Your task to perform on an android device: turn notification dots on Image 0: 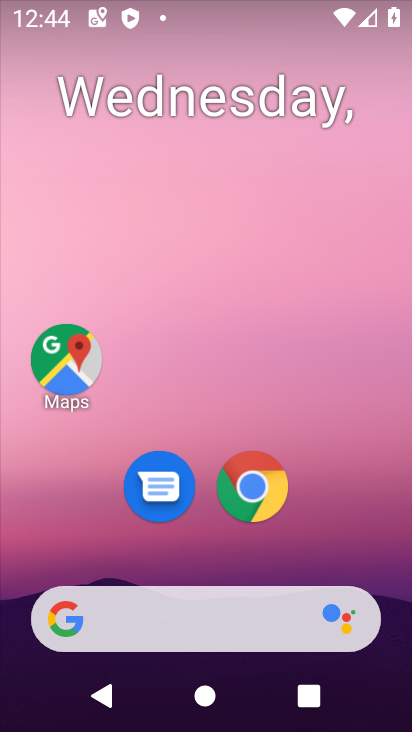
Step 0: drag from (362, 531) to (332, 76)
Your task to perform on an android device: turn notification dots on Image 1: 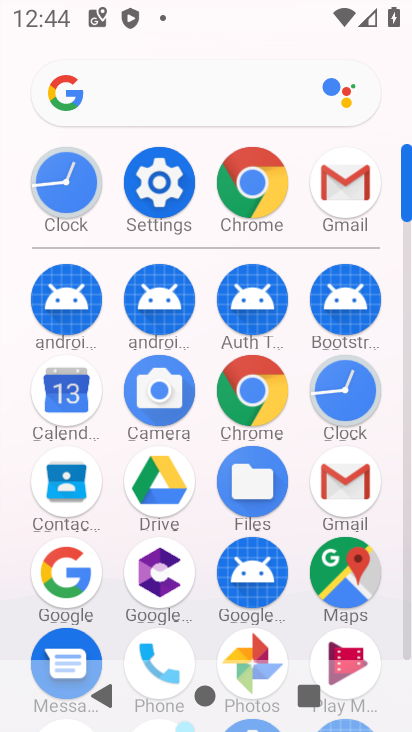
Step 1: click (165, 196)
Your task to perform on an android device: turn notification dots on Image 2: 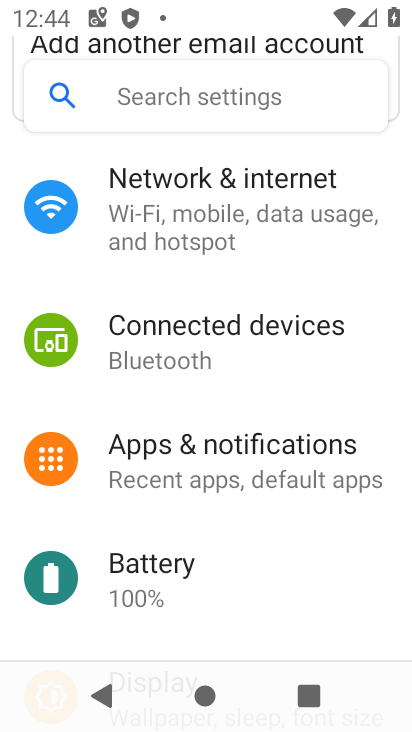
Step 2: drag from (342, 516) to (357, 371)
Your task to perform on an android device: turn notification dots on Image 3: 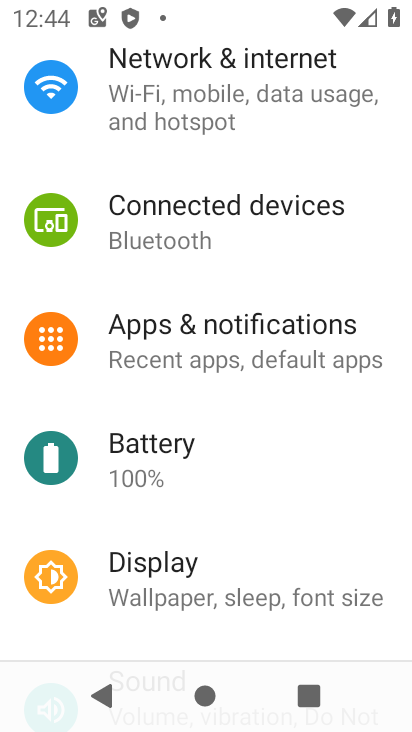
Step 3: drag from (303, 504) to (338, 274)
Your task to perform on an android device: turn notification dots on Image 4: 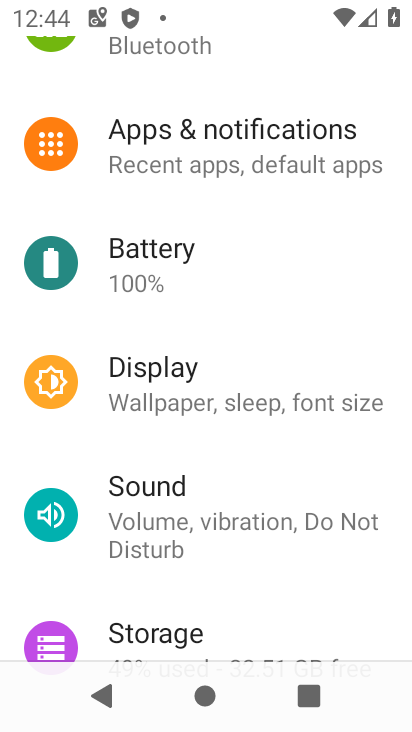
Step 4: click (331, 166)
Your task to perform on an android device: turn notification dots on Image 5: 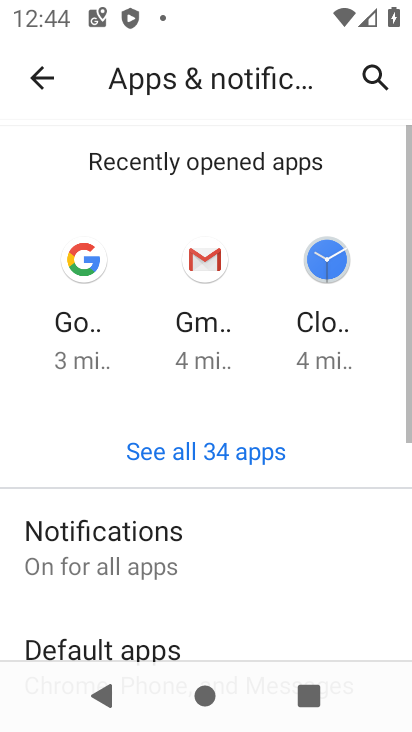
Step 5: drag from (338, 490) to (330, 330)
Your task to perform on an android device: turn notification dots on Image 6: 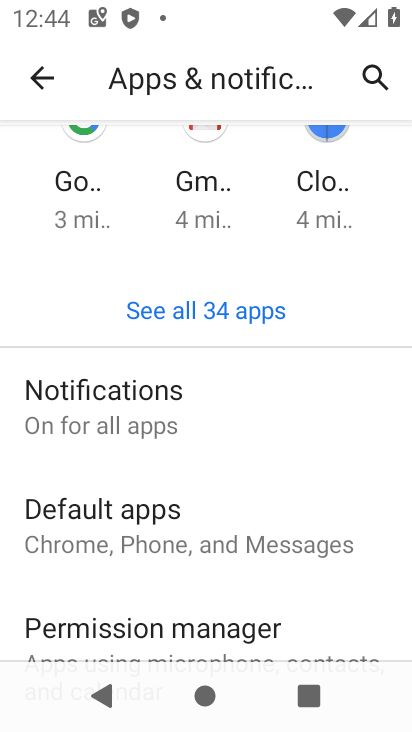
Step 6: drag from (339, 475) to (339, 281)
Your task to perform on an android device: turn notification dots on Image 7: 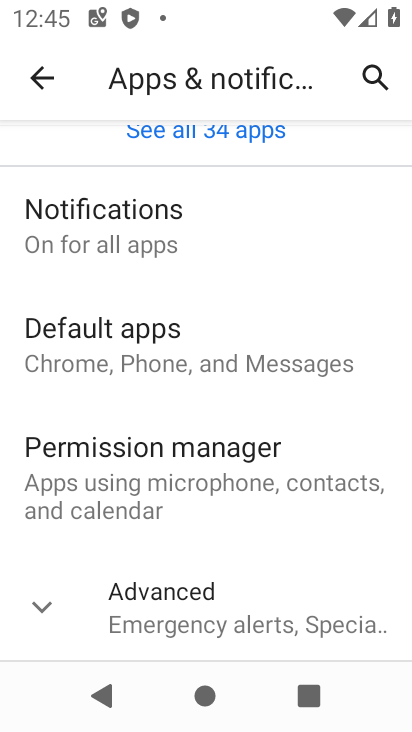
Step 7: click (183, 232)
Your task to perform on an android device: turn notification dots on Image 8: 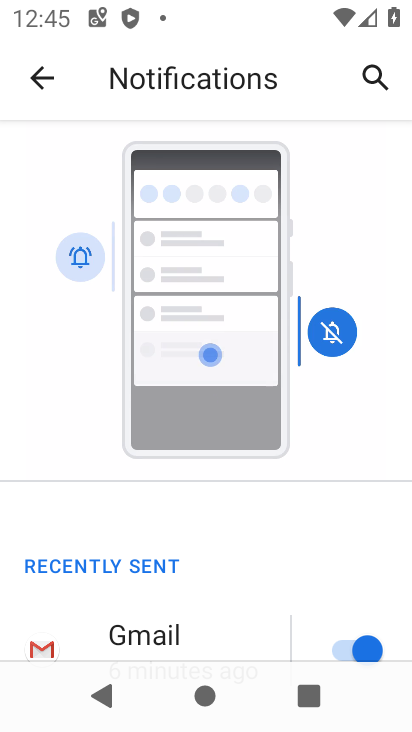
Step 8: drag from (321, 502) to (310, 358)
Your task to perform on an android device: turn notification dots on Image 9: 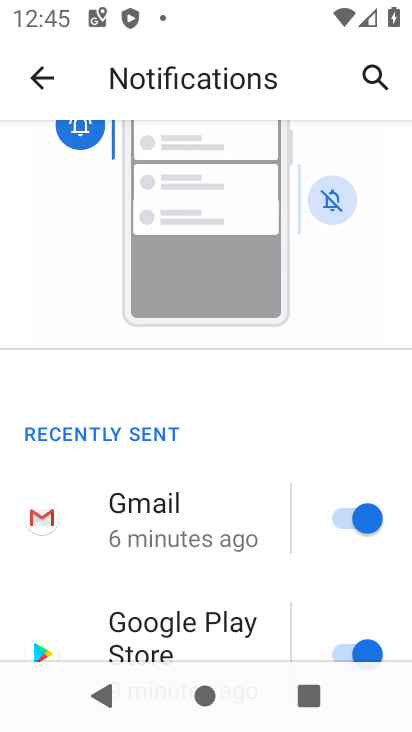
Step 9: drag from (263, 566) to (267, 408)
Your task to perform on an android device: turn notification dots on Image 10: 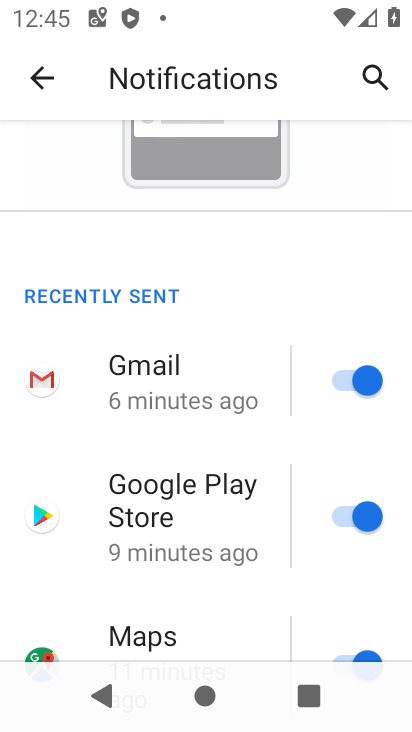
Step 10: drag from (266, 554) to (241, 338)
Your task to perform on an android device: turn notification dots on Image 11: 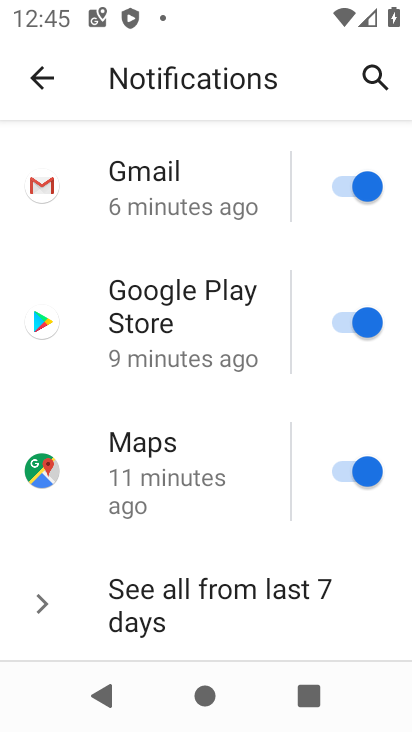
Step 11: drag from (241, 518) to (232, 287)
Your task to perform on an android device: turn notification dots on Image 12: 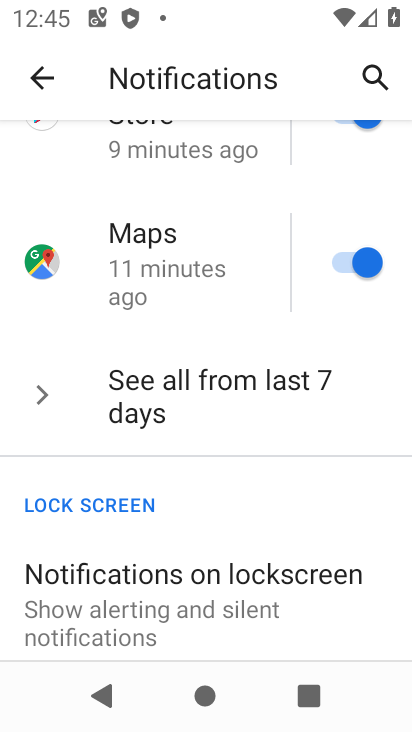
Step 12: drag from (256, 570) to (257, 299)
Your task to perform on an android device: turn notification dots on Image 13: 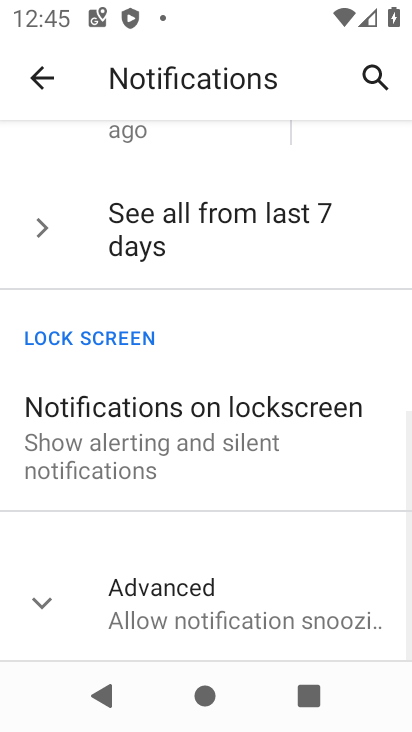
Step 13: click (277, 602)
Your task to perform on an android device: turn notification dots on Image 14: 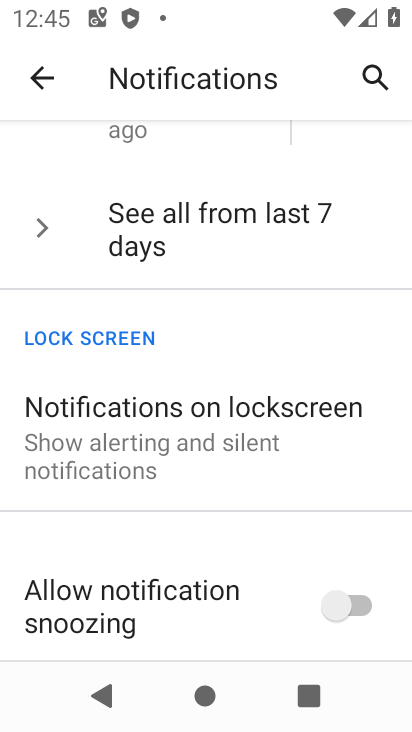
Step 14: task complete